Your task to perform on an android device: Clear the shopping cart on newegg.com. Search for "macbook pro" on newegg.com, select the first entry, add it to the cart, then select checkout. Image 0: 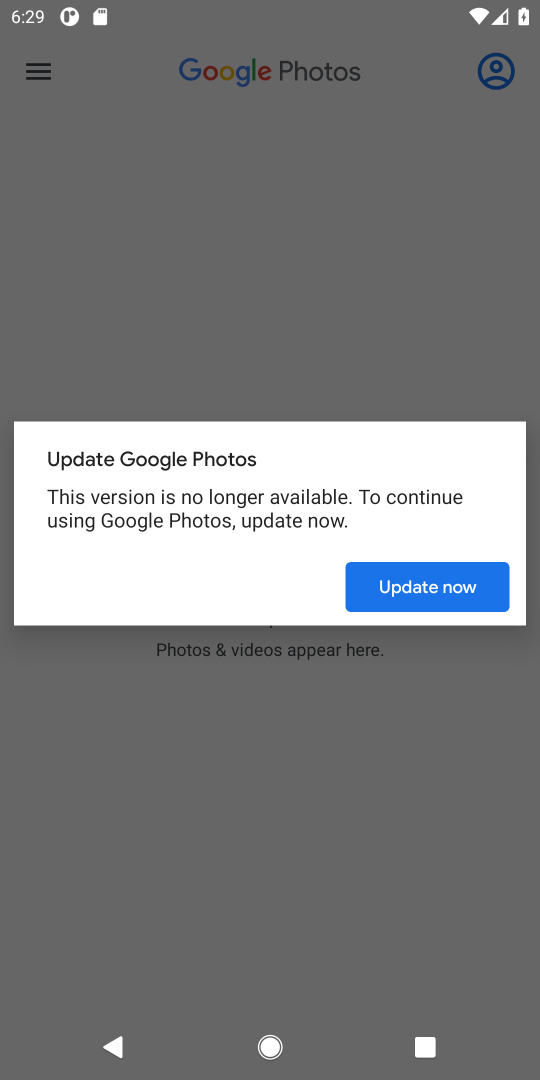
Step 0: press home button
Your task to perform on an android device: Clear the shopping cart on newegg.com. Search for "macbook pro" on newegg.com, select the first entry, add it to the cart, then select checkout. Image 1: 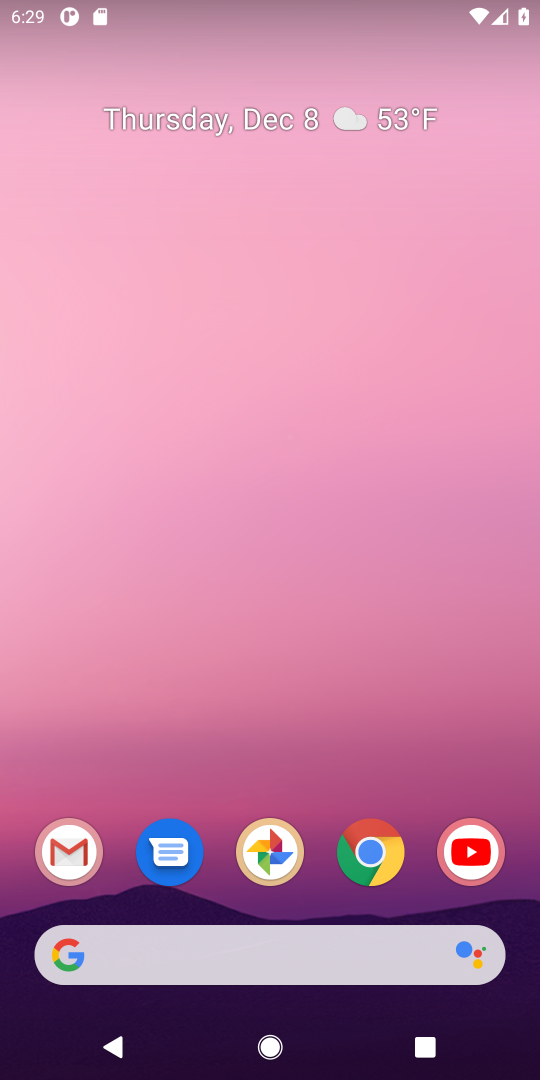
Step 1: click (161, 979)
Your task to perform on an android device: Clear the shopping cart on newegg.com. Search for "macbook pro" on newegg.com, select the first entry, add it to the cart, then select checkout. Image 2: 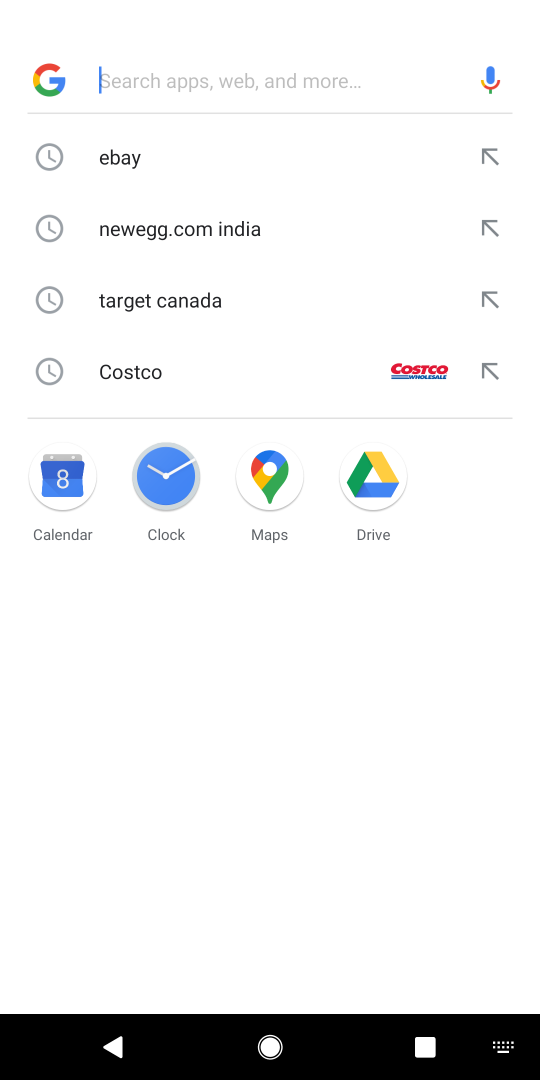
Step 2: type "newegg.com"
Your task to perform on an android device: Clear the shopping cart on newegg.com. Search for "macbook pro" on newegg.com, select the first entry, add it to the cart, then select checkout. Image 3: 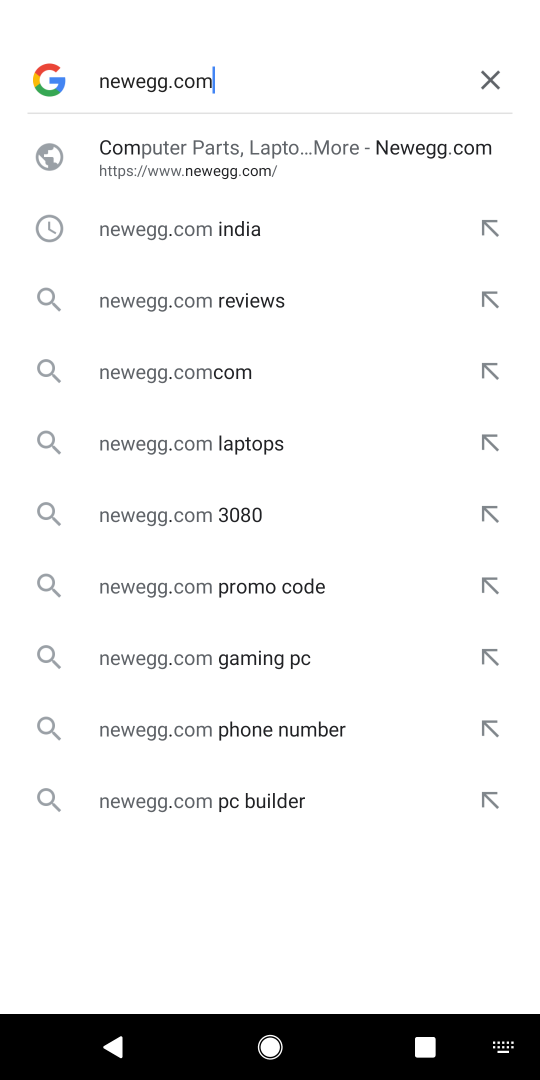
Step 3: click (123, 173)
Your task to perform on an android device: Clear the shopping cart on newegg.com. Search for "macbook pro" on newegg.com, select the first entry, add it to the cart, then select checkout. Image 4: 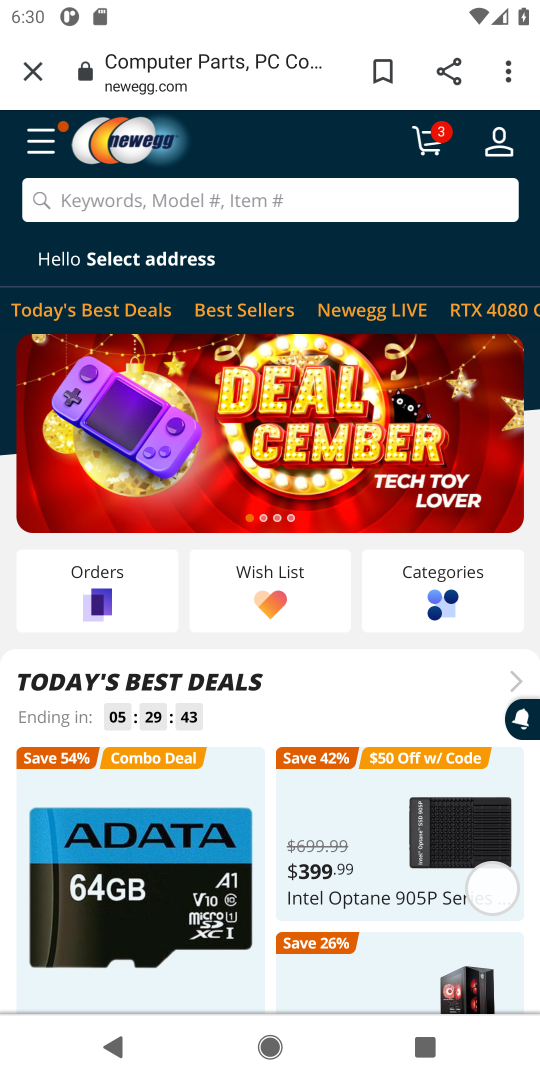
Step 4: click (169, 210)
Your task to perform on an android device: Clear the shopping cart on newegg.com. Search for "macbook pro" on newegg.com, select the first entry, add it to the cart, then select checkout. Image 5: 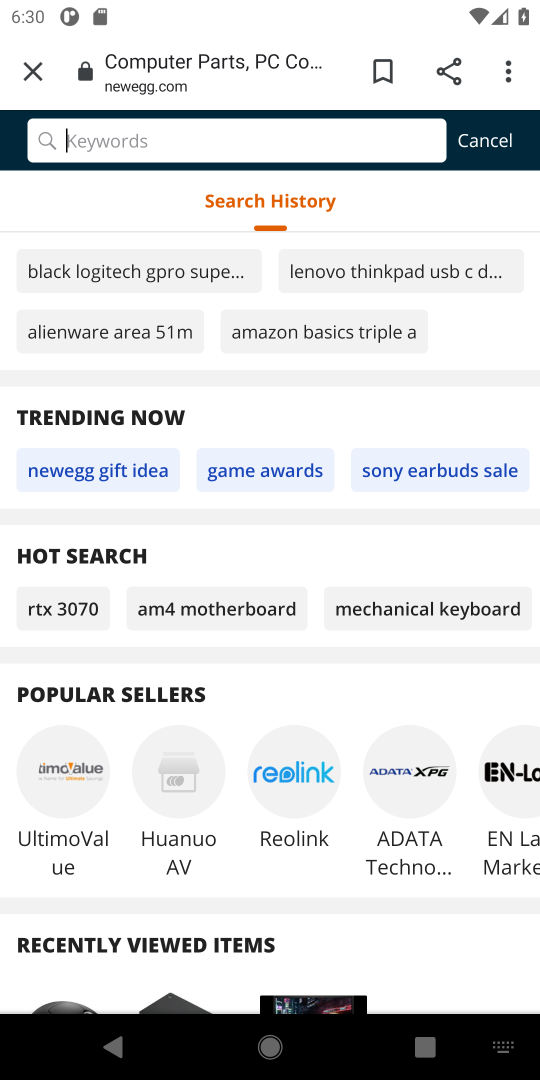
Step 5: type "macbook pro"
Your task to perform on an android device: Clear the shopping cart on newegg.com. Search for "macbook pro" on newegg.com, select the first entry, add it to the cart, then select checkout. Image 6: 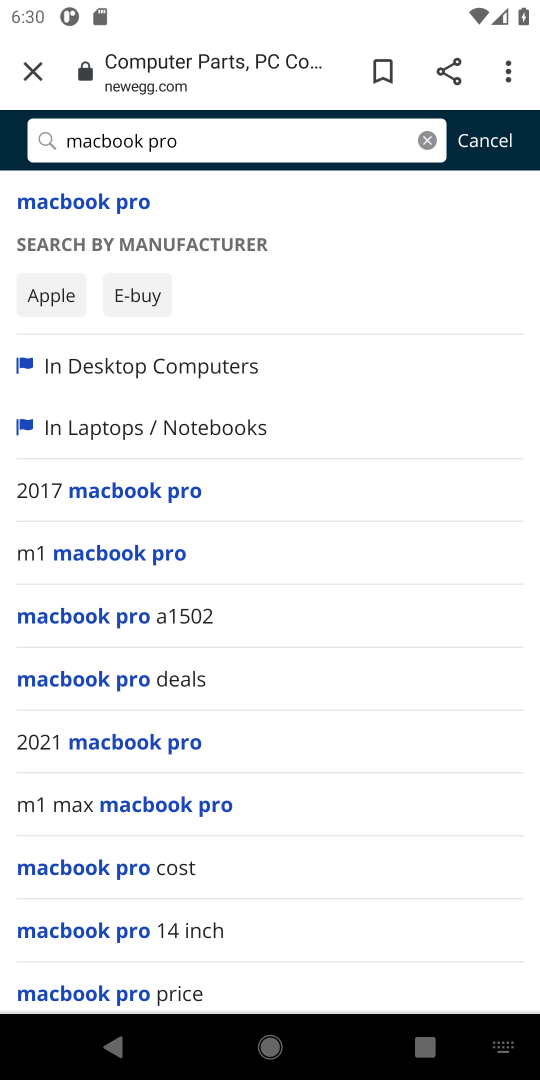
Step 6: click (39, 194)
Your task to perform on an android device: Clear the shopping cart on newegg.com. Search for "macbook pro" on newegg.com, select the first entry, add it to the cart, then select checkout. Image 7: 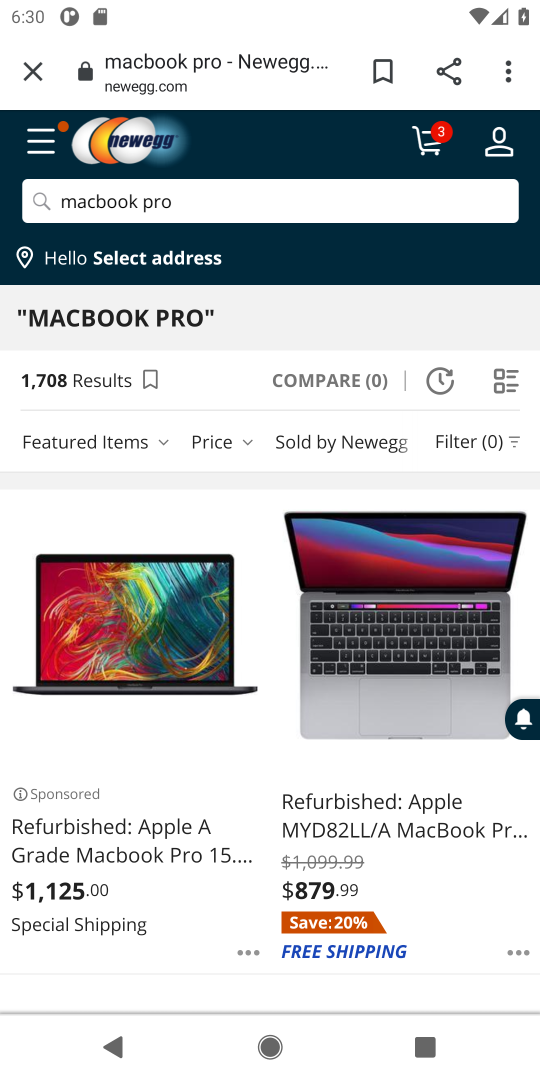
Step 7: click (297, 845)
Your task to perform on an android device: Clear the shopping cart on newegg.com. Search for "macbook pro" on newegg.com, select the first entry, add it to the cart, then select checkout. Image 8: 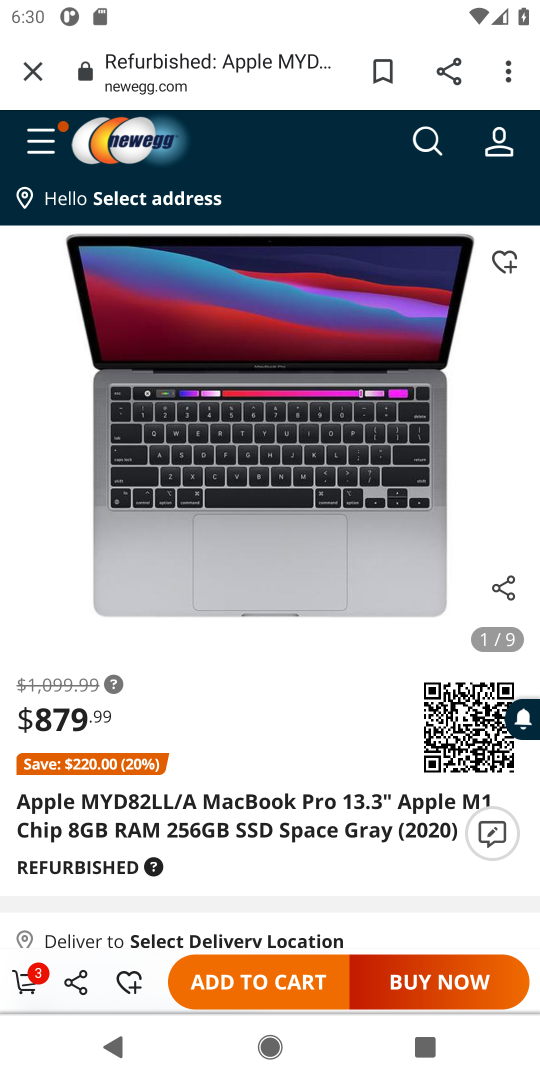
Step 8: click (298, 983)
Your task to perform on an android device: Clear the shopping cart on newegg.com. Search for "macbook pro" on newegg.com, select the first entry, add it to the cart, then select checkout. Image 9: 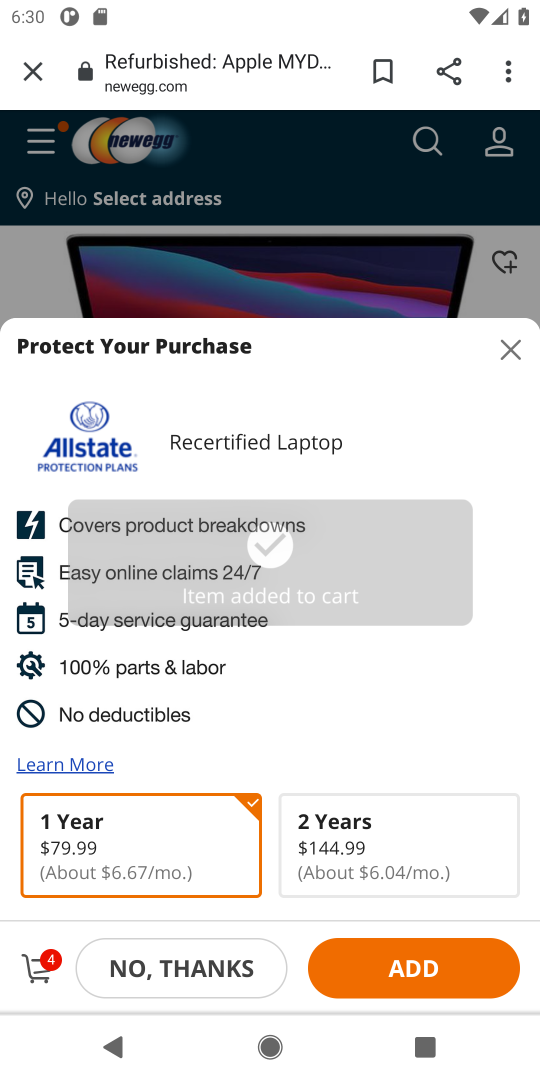
Step 9: task complete